Your task to perform on an android device: set an alarm Image 0: 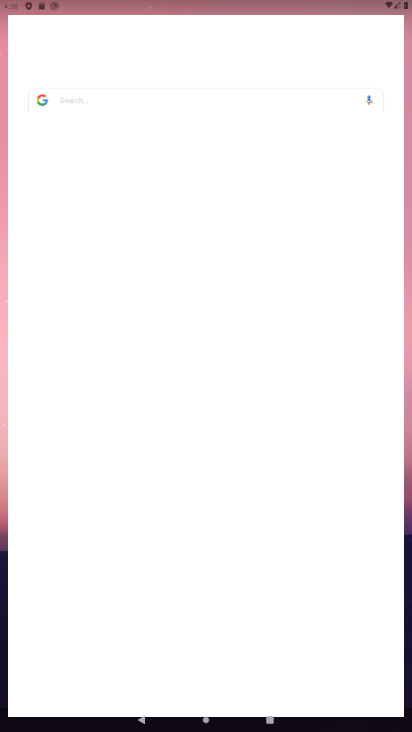
Step 0: drag from (209, 141) to (221, 72)
Your task to perform on an android device: set an alarm Image 1: 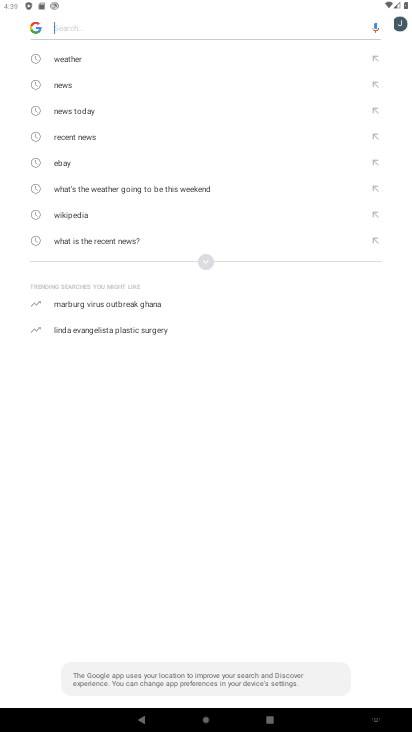
Step 1: press home button
Your task to perform on an android device: set an alarm Image 2: 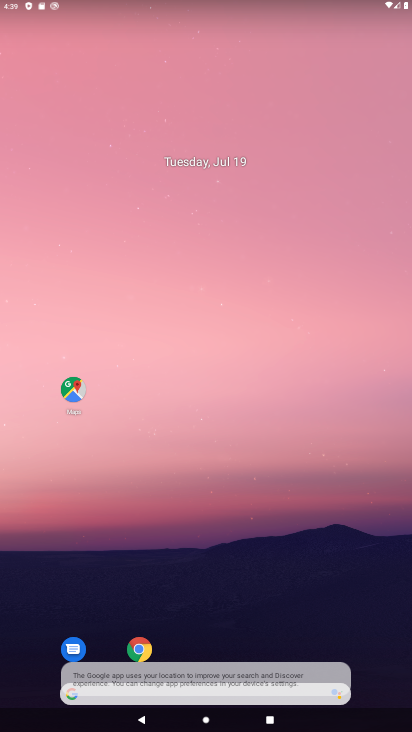
Step 2: drag from (212, 575) to (230, 93)
Your task to perform on an android device: set an alarm Image 3: 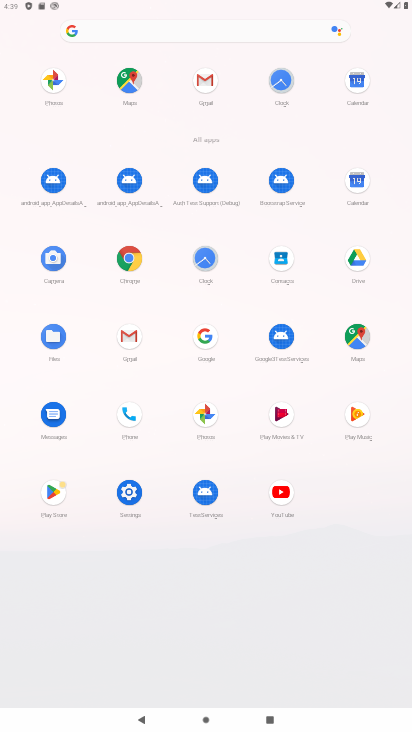
Step 3: click (207, 263)
Your task to perform on an android device: set an alarm Image 4: 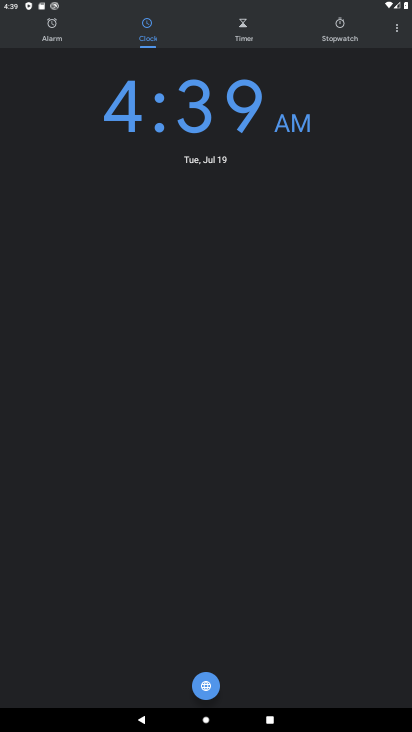
Step 4: click (394, 27)
Your task to perform on an android device: set an alarm Image 5: 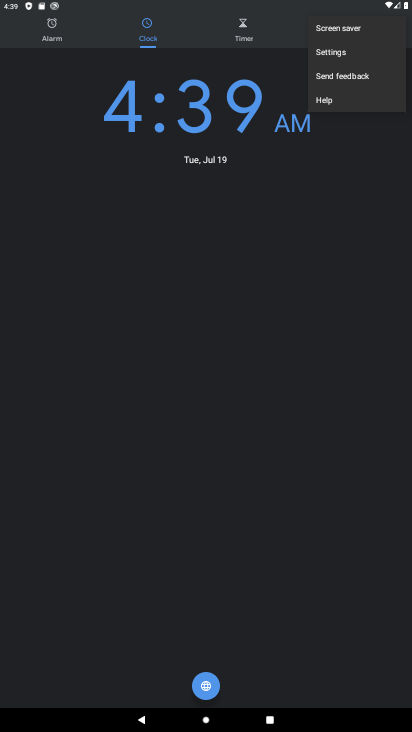
Step 5: click (54, 34)
Your task to perform on an android device: set an alarm Image 6: 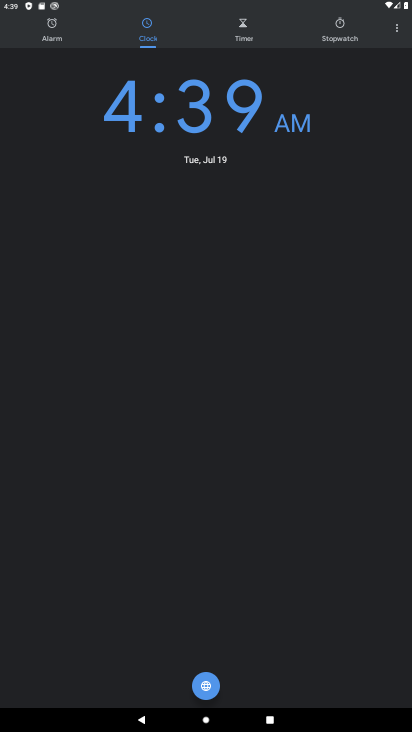
Step 6: click (54, 34)
Your task to perform on an android device: set an alarm Image 7: 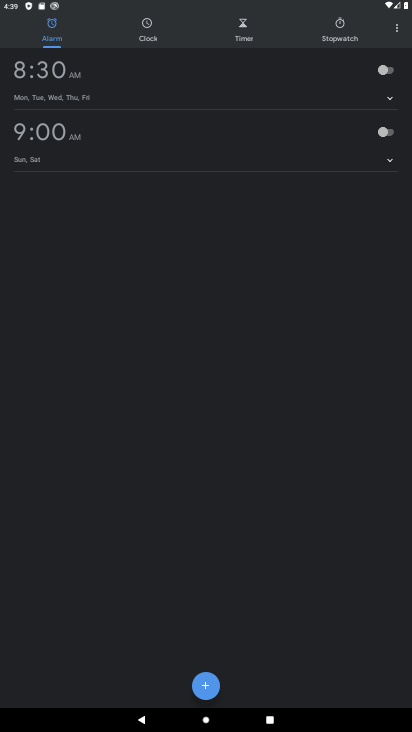
Step 7: click (389, 76)
Your task to perform on an android device: set an alarm Image 8: 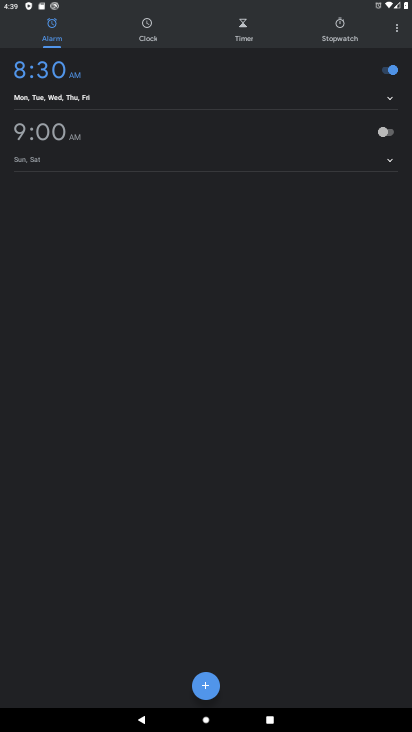
Step 8: task complete